Your task to perform on an android device: open chrome and create a bookmark for the current page Image 0: 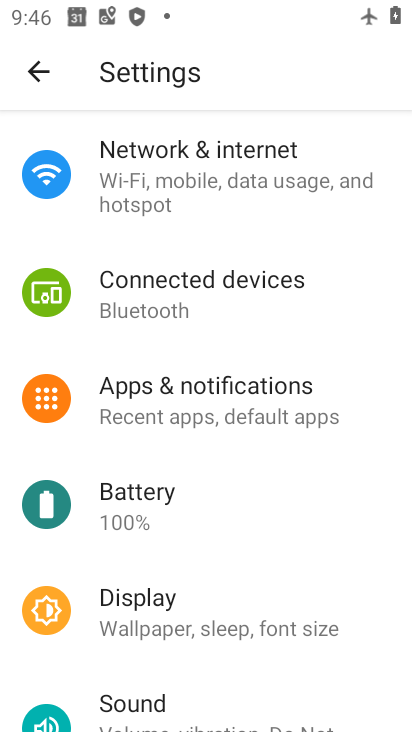
Step 0: press home button
Your task to perform on an android device: open chrome and create a bookmark for the current page Image 1: 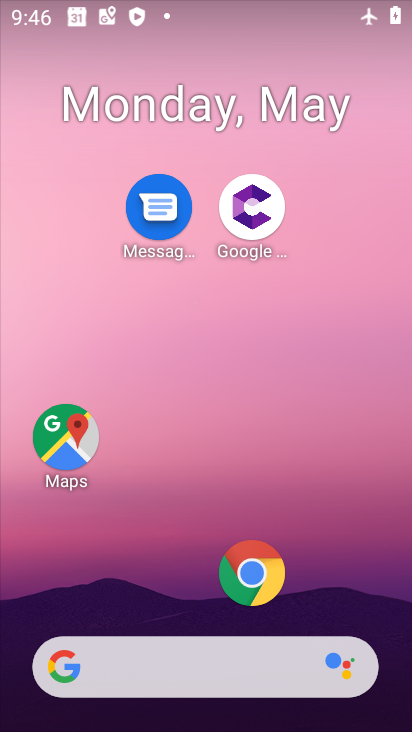
Step 1: drag from (170, 573) to (225, 125)
Your task to perform on an android device: open chrome and create a bookmark for the current page Image 2: 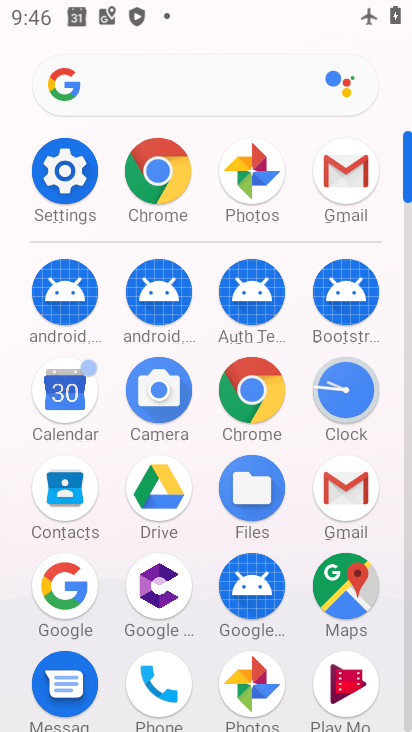
Step 2: click (151, 195)
Your task to perform on an android device: open chrome and create a bookmark for the current page Image 3: 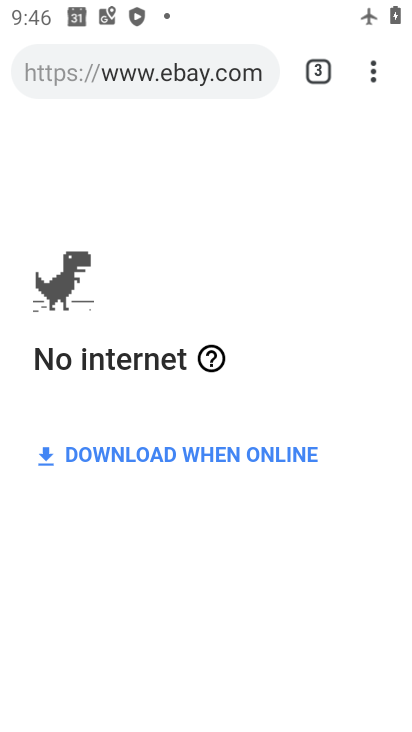
Step 3: click (378, 66)
Your task to perform on an android device: open chrome and create a bookmark for the current page Image 4: 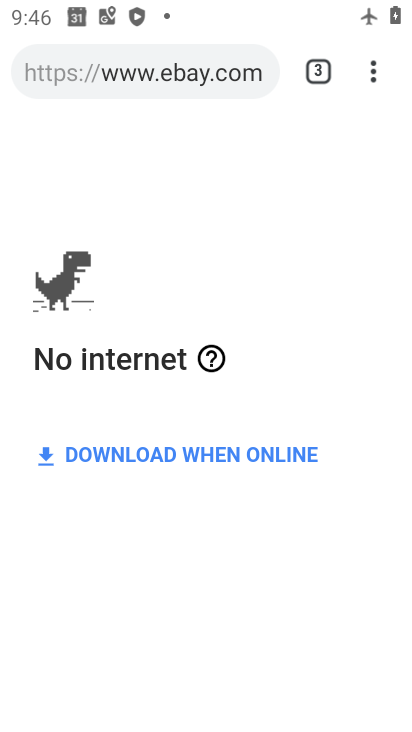
Step 4: click (375, 70)
Your task to perform on an android device: open chrome and create a bookmark for the current page Image 5: 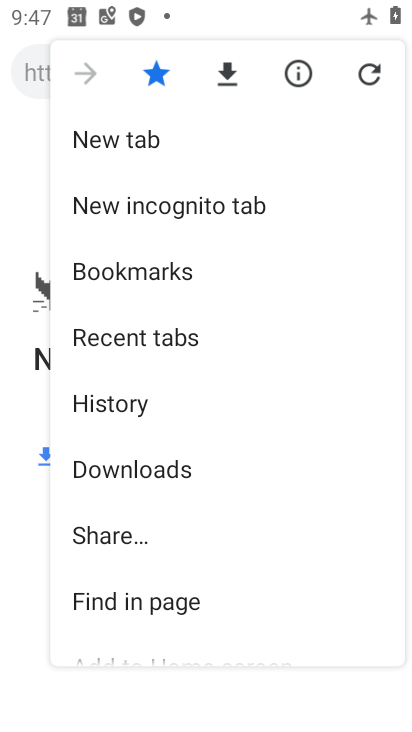
Step 5: task complete